Your task to perform on an android device: turn on showing notifications on the lock screen Image 0: 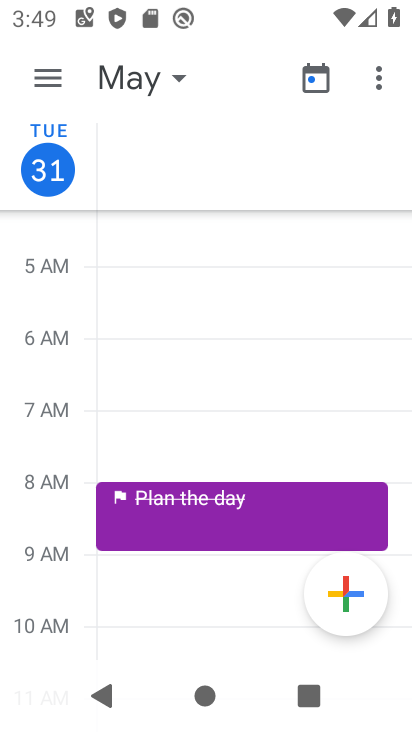
Step 0: press home button
Your task to perform on an android device: turn on showing notifications on the lock screen Image 1: 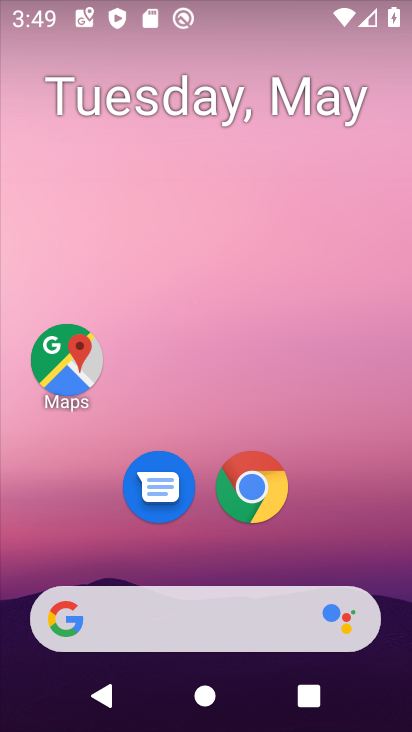
Step 1: drag from (184, 565) to (203, 98)
Your task to perform on an android device: turn on showing notifications on the lock screen Image 2: 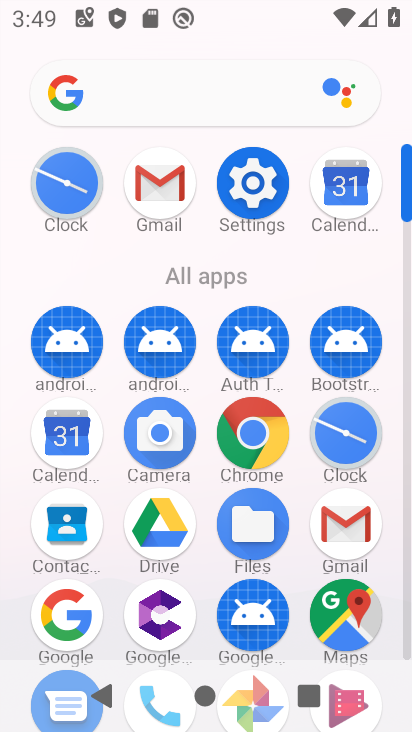
Step 2: click (263, 196)
Your task to perform on an android device: turn on showing notifications on the lock screen Image 3: 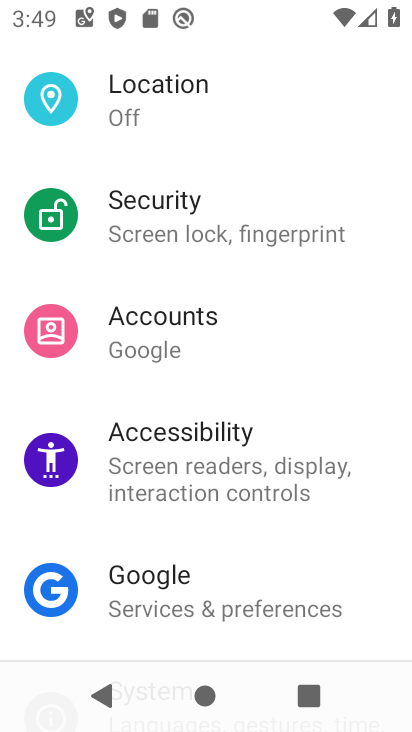
Step 3: drag from (250, 554) to (250, 723)
Your task to perform on an android device: turn on showing notifications on the lock screen Image 4: 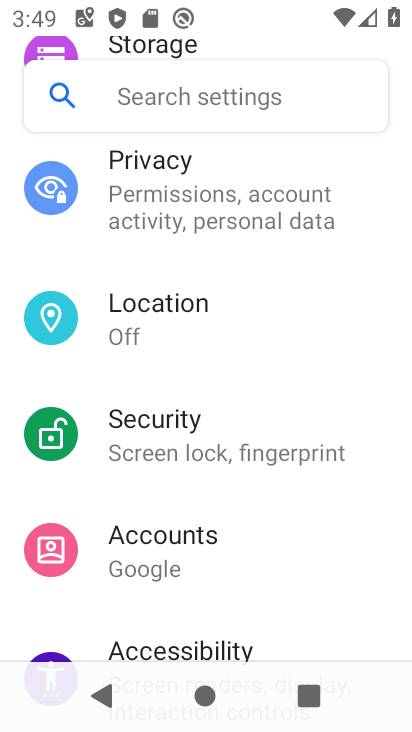
Step 4: drag from (273, 228) to (193, 730)
Your task to perform on an android device: turn on showing notifications on the lock screen Image 5: 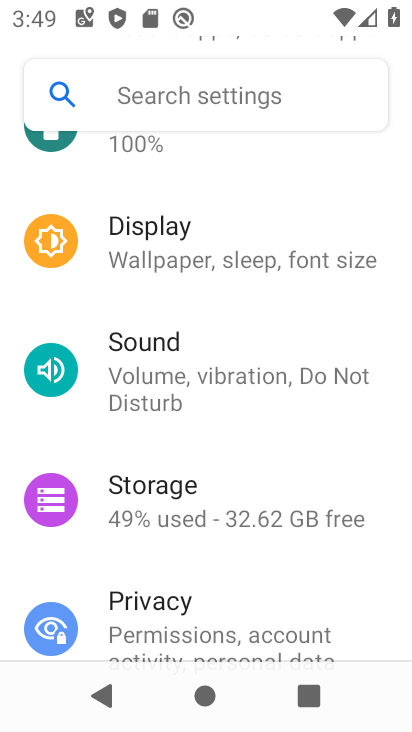
Step 5: drag from (307, 294) to (311, 590)
Your task to perform on an android device: turn on showing notifications on the lock screen Image 6: 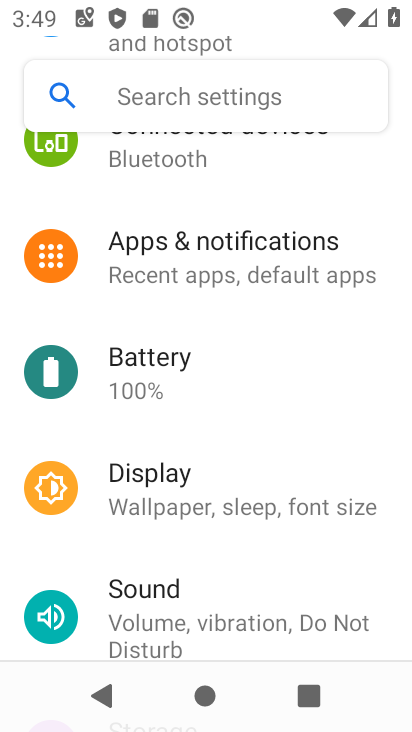
Step 6: click (291, 275)
Your task to perform on an android device: turn on showing notifications on the lock screen Image 7: 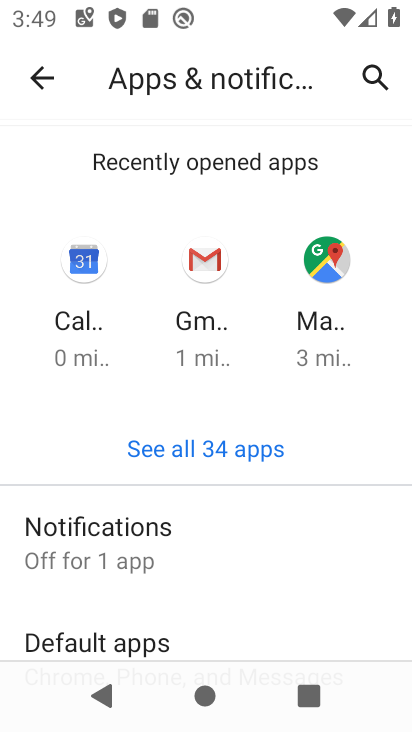
Step 7: drag from (161, 561) to (199, 415)
Your task to perform on an android device: turn on showing notifications on the lock screen Image 8: 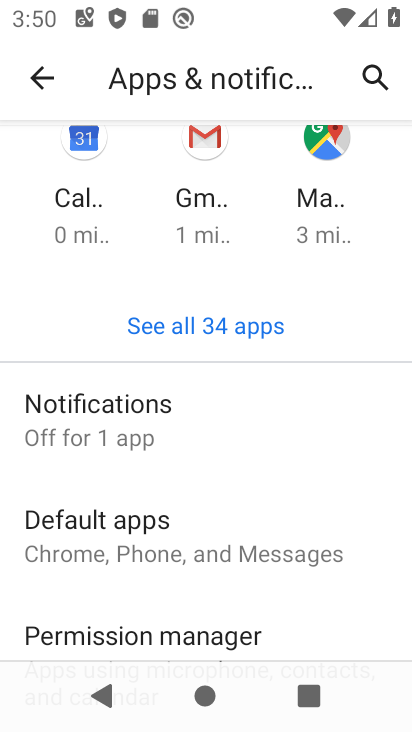
Step 8: click (155, 417)
Your task to perform on an android device: turn on showing notifications on the lock screen Image 9: 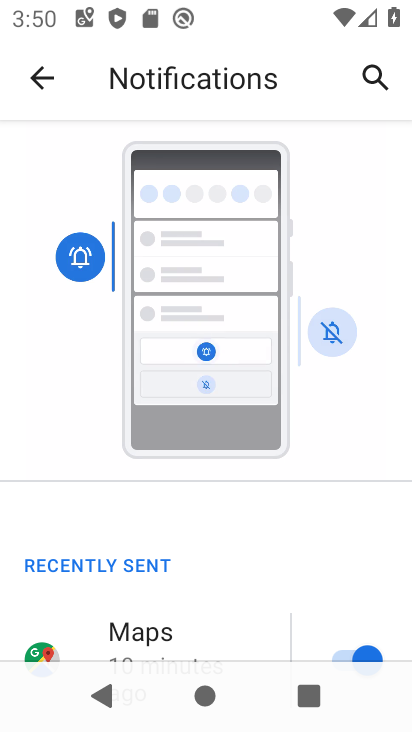
Step 9: drag from (174, 585) to (236, 363)
Your task to perform on an android device: turn on showing notifications on the lock screen Image 10: 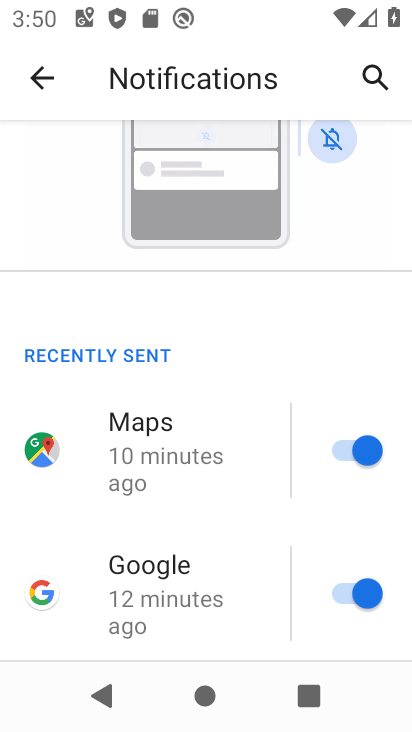
Step 10: drag from (228, 535) to (255, 282)
Your task to perform on an android device: turn on showing notifications on the lock screen Image 11: 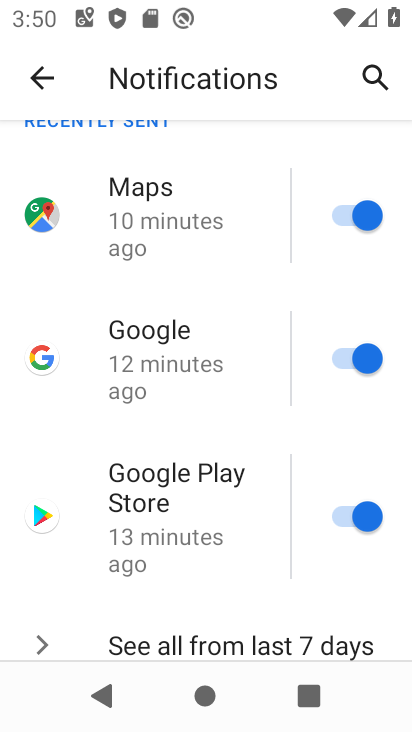
Step 11: drag from (249, 581) to (257, 283)
Your task to perform on an android device: turn on showing notifications on the lock screen Image 12: 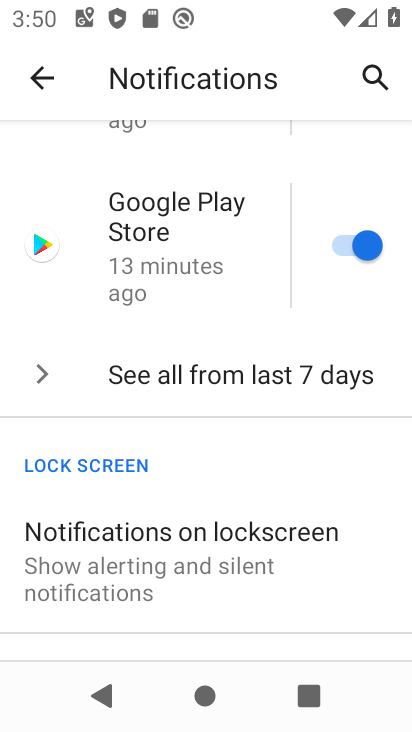
Step 12: click (147, 550)
Your task to perform on an android device: turn on showing notifications on the lock screen Image 13: 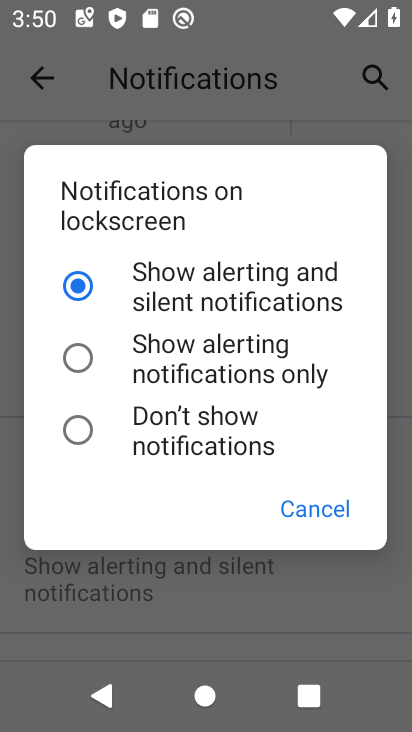
Step 13: task complete